Your task to perform on an android device: Show me recent news Image 0: 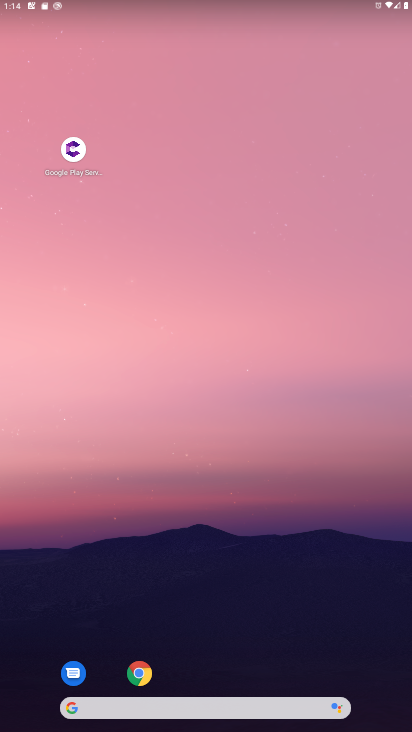
Step 0: drag from (217, 653) to (222, 280)
Your task to perform on an android device: Show me recent news Image 1: 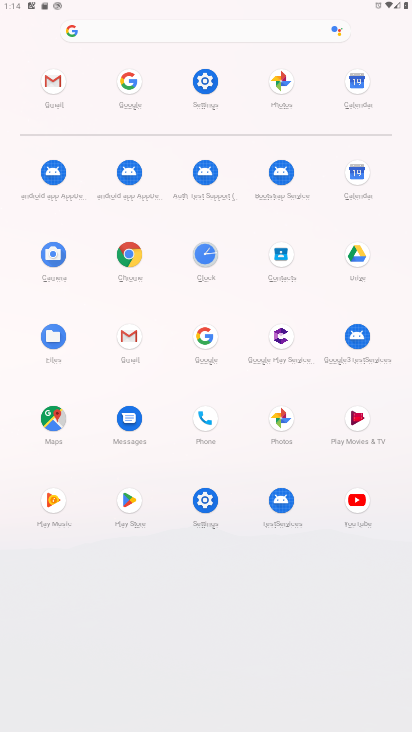
Step 1: click (217, 327)
Your task to perform on an android device: Show me recent news Image 2: 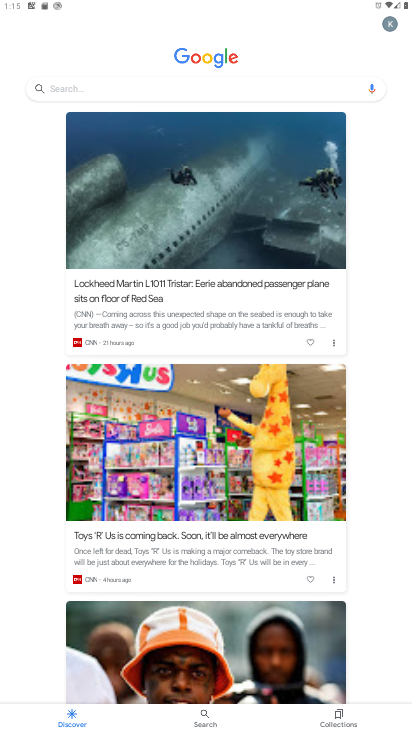
Step 2: click (104, 95)
Your task to perform on an android device: Show me recent news Image 3: 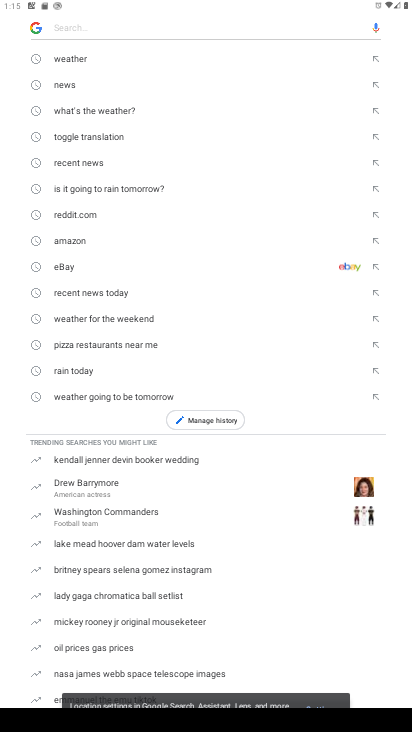
Step 3: click (81, 92)
Your task to perform on an android device: Show me recent news Image 4: 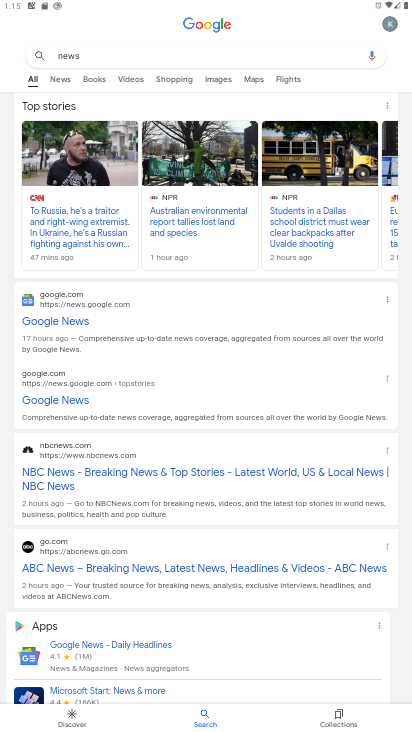
Step 4: click (51, 79)
Your task to perform on an android device: Show me recent news Image 5: 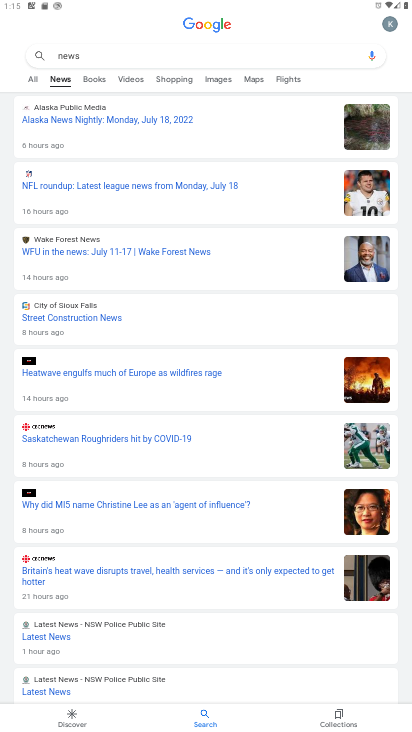
Step 5: task complete